Your task to perform on an android device: turn off location history Image 0: 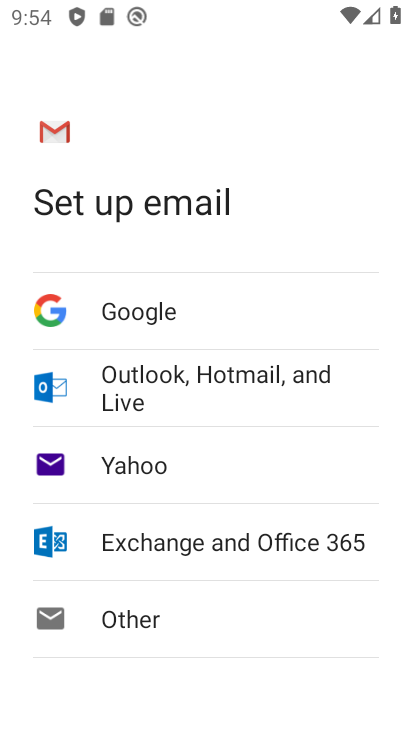
Step 0: press home button
Your task to perform on an android device: turn off location history Image 1: 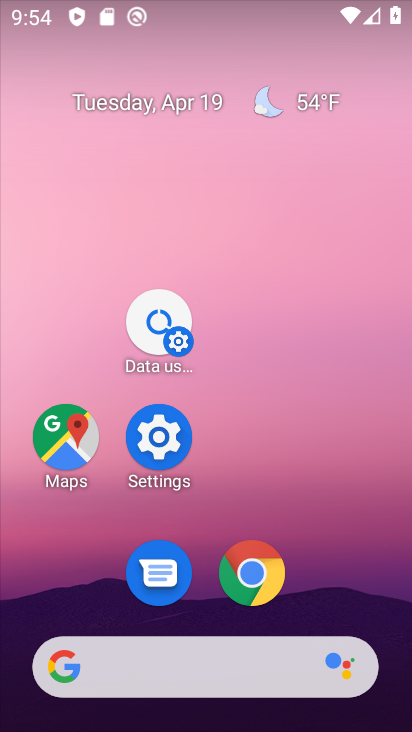
Step 1: click (60, 441)
Your task to perform on an android device: turn off location history Image 2: 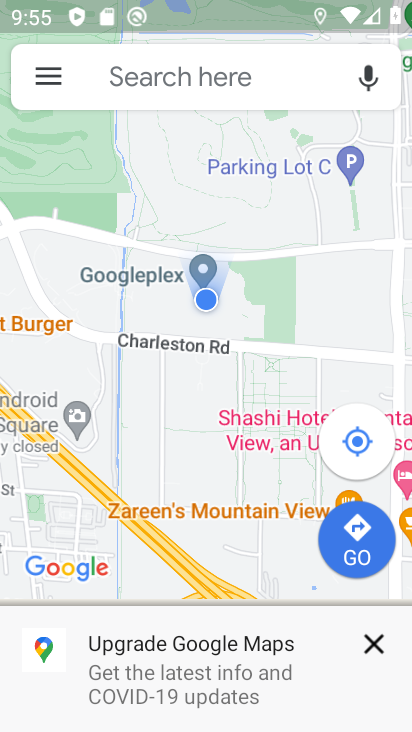
Step 2: click (50, 75)
Your task to perform on an android device: turn off location history Image 3: 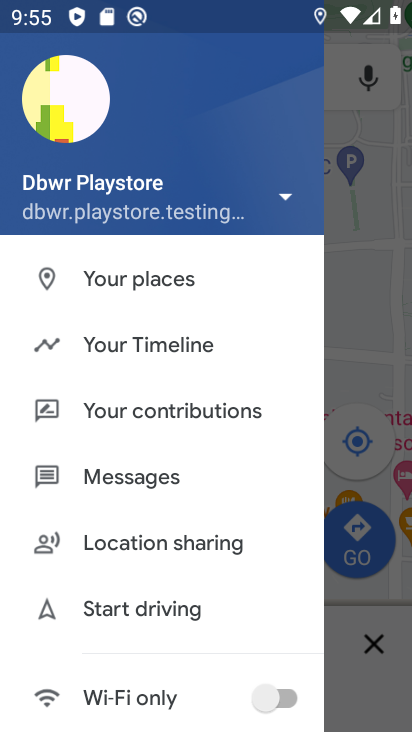
Step 3: click (96, 352)
Your task to perform on an android device: turn off location history Image 4: 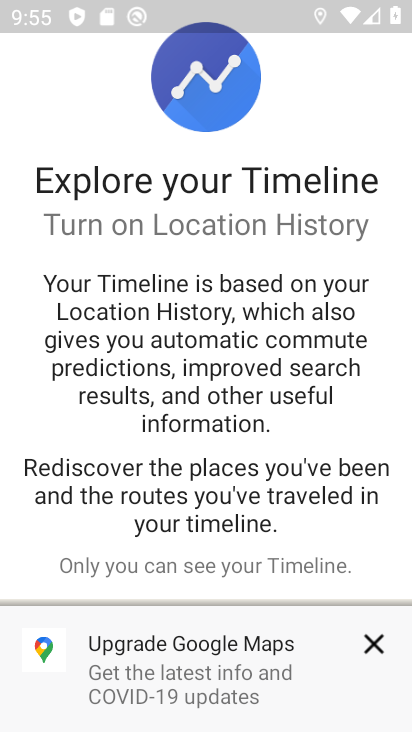
Step 4: drag from (245, 490) to (200, 223)
Your task to perform on an android device: turn off location history Image 5: 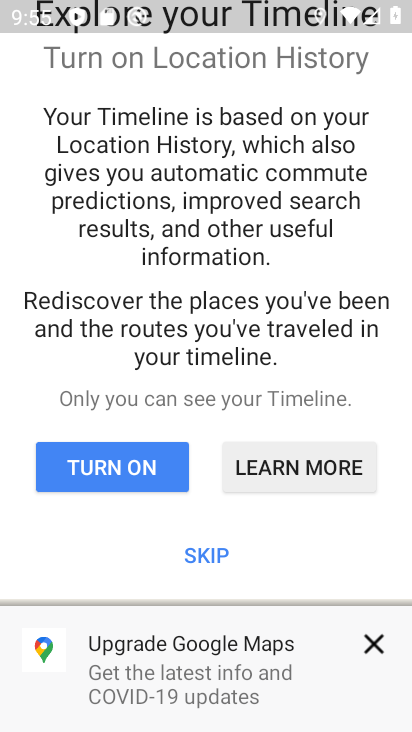
Step 5: click (193, 550)
Your task to perform on an android device: turn off location history Image 6: 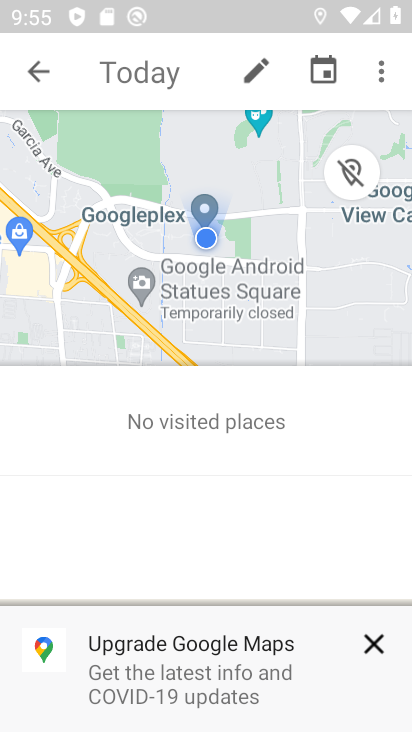
Step 6: click (381, 72)
Your task to perform on an android device: turn off location history Image 7: 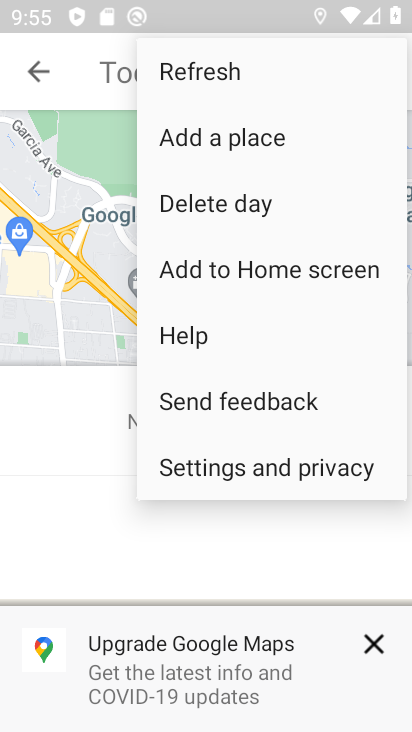
Step 7: click (236, 469)
Your task to perform on an android device: turn off location history Image 8: 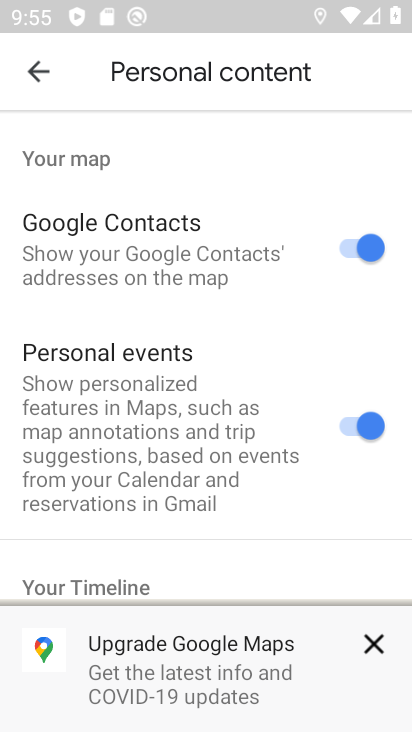
Step 8: drag from (150, 515) to (174, 133)
Your task to perform on an android device: turn off location history Image 9: 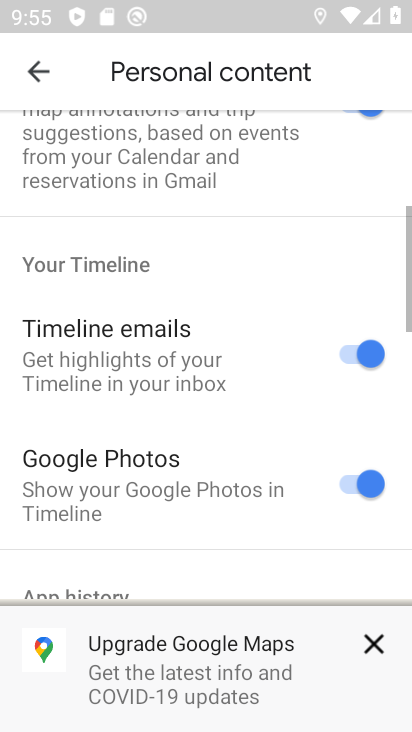
Step 9: drag from (165, 474) to (172, 143)
Your task to perform on an android device: turn off location history Image 10: 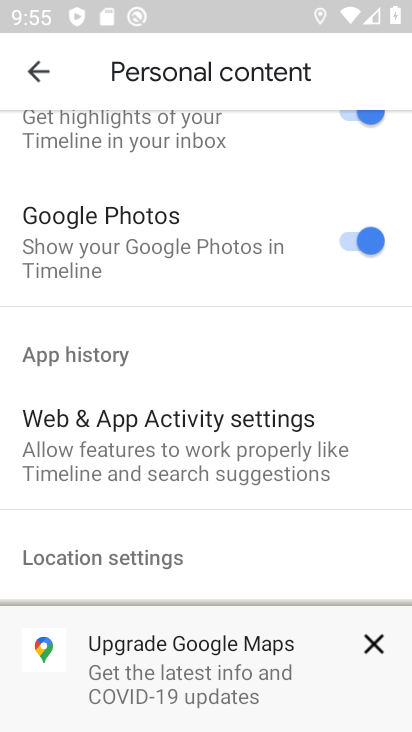
Step 10: drag from (132, 527) to (144, 198)
Your task to perform on an android device: turn off location history Image 11: 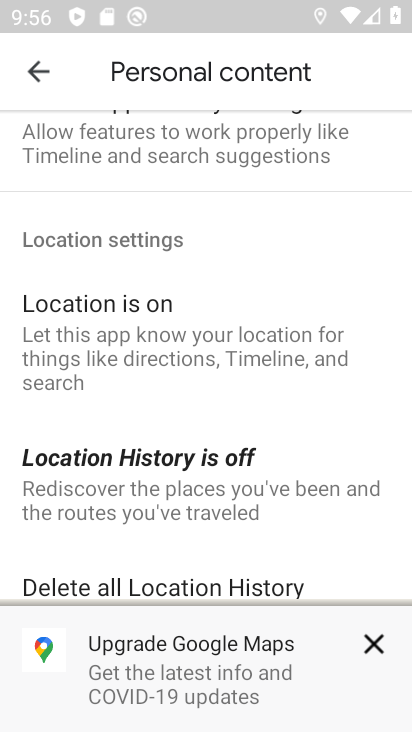
Step 11: click (97, 473)
Your task to perform on an android device: turn off location history Image 12: 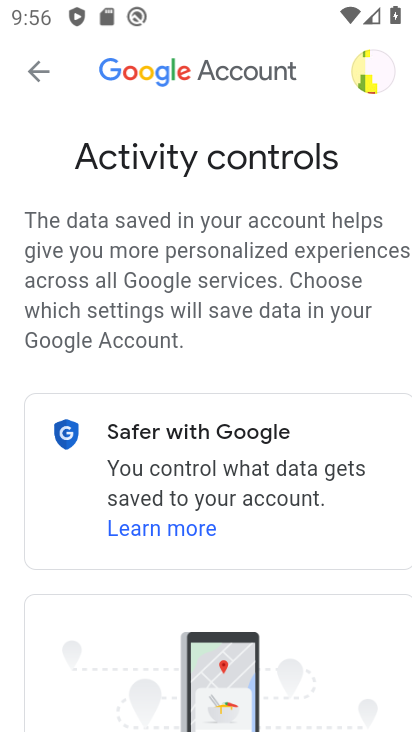
Step 12: drag from (318, 503) to (314, 125)
Your task to perform on an android device: turn off location history Image 13: 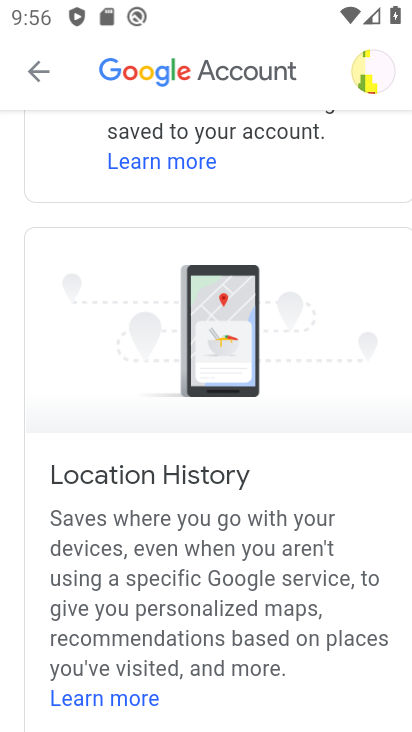
Step 13: drag from (284, 632) to (275, 235)
Your task to perform on an android device: turn off location history Image 14: 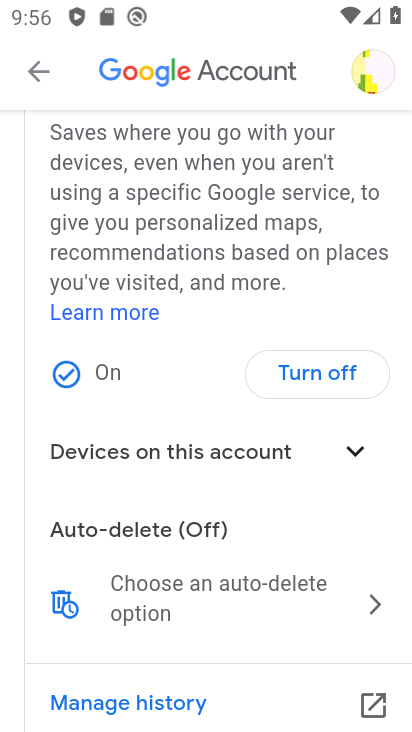
Step 14: click (319, 375)
Your task to perform on an android device: turn off location history Image 15: 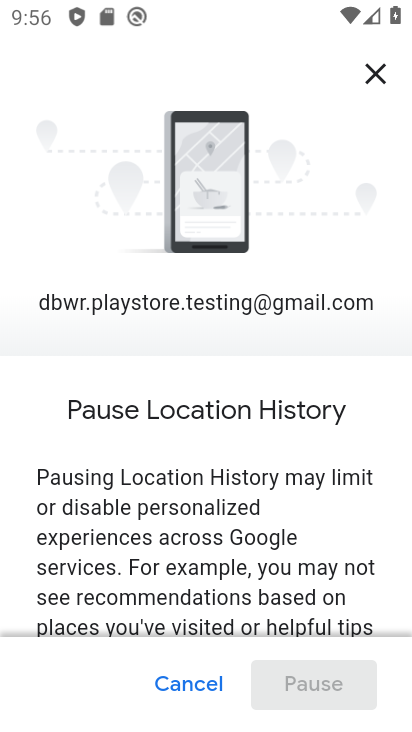
Step 15: drag from (265, 548) to (250, 123)
Your task to perform on an android device: turn off location history Image 16: 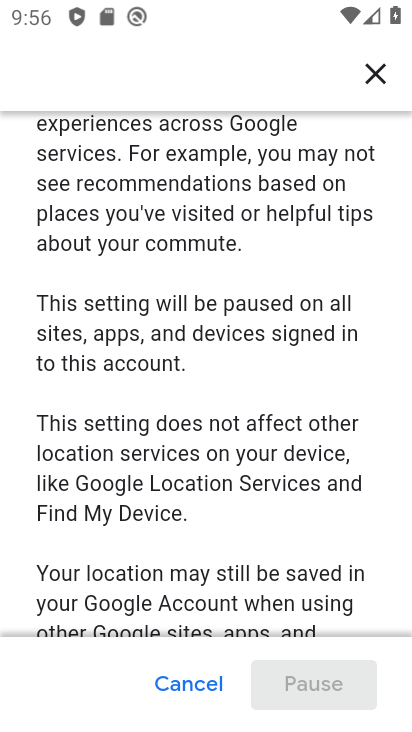
Step 16: drag from (195, 538) to (205, 122)
Your task to perform on an android device: turn off location history Image 17: 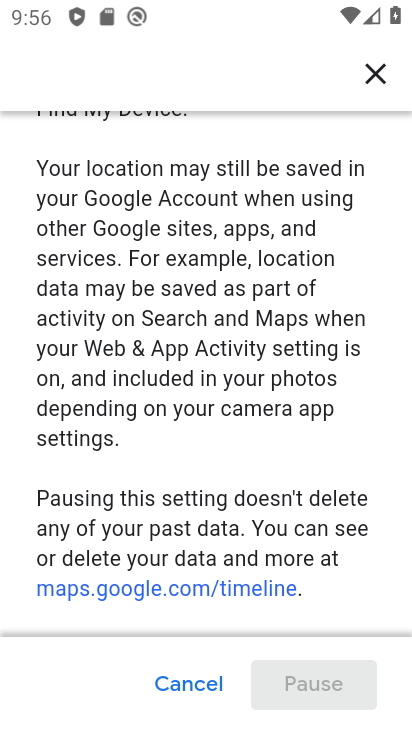
Step 17: drag from (196, 508) to (209, 165)
Your task to perform on an android device: turn off location history Image 18: 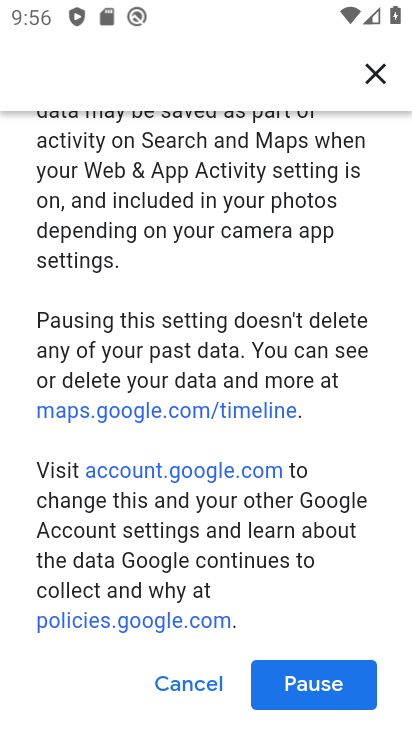
Step 18: click (311, 683)
Your task to perform on an android device: turn off location history Image 19: 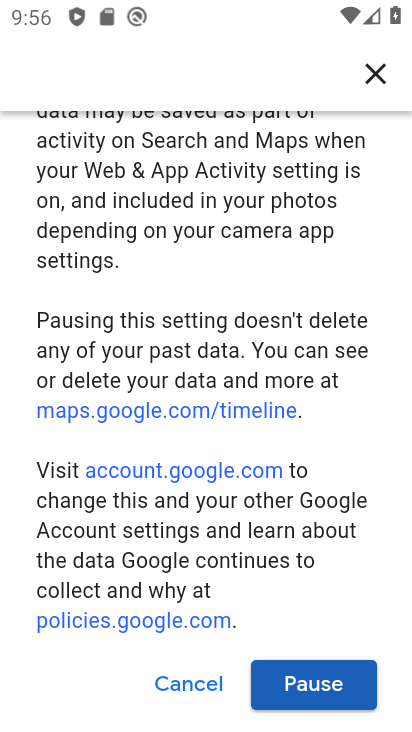
Step 19: drag from (178, 547) to (193, 254)
Your task to perform on an android device: turn off location history Image 20: 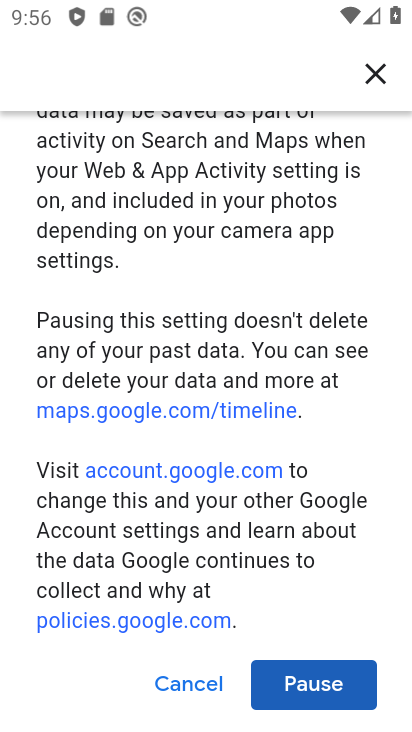
Step 20: click (306, 687)
Your task to perform on an android device: turn off location history Image 21: 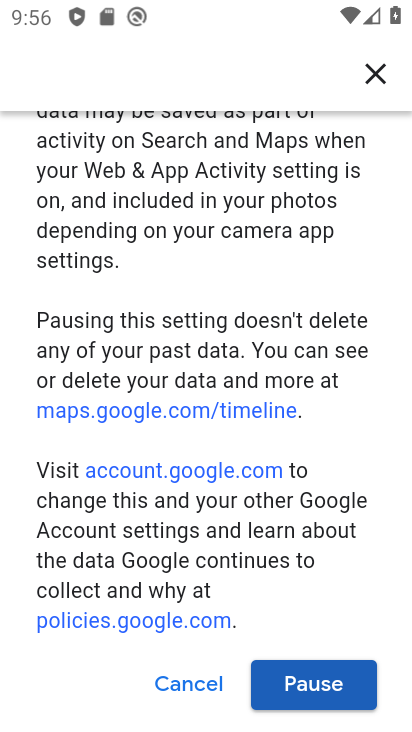
Step 21: click (308, 690)
Your task to perform on an android device: turn off location history Image 22: 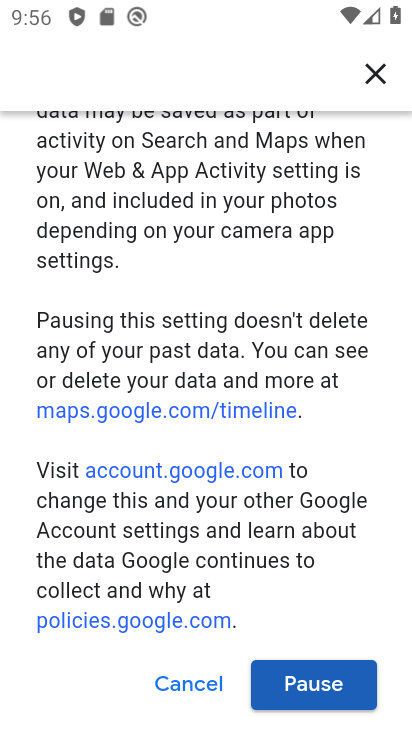
Step 22: click (311, 683)
Your task to perform on an android device: turn off location history Image 23: 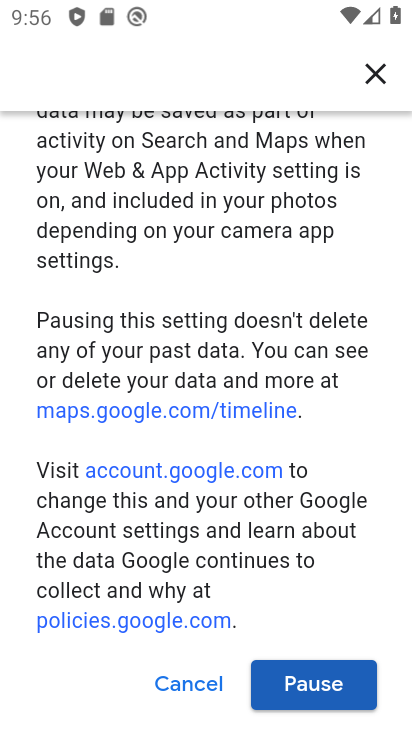
Step 23: drag from (237, 534) to (213, 290)
Your task to perform on an android device: turn off location history Image 24: 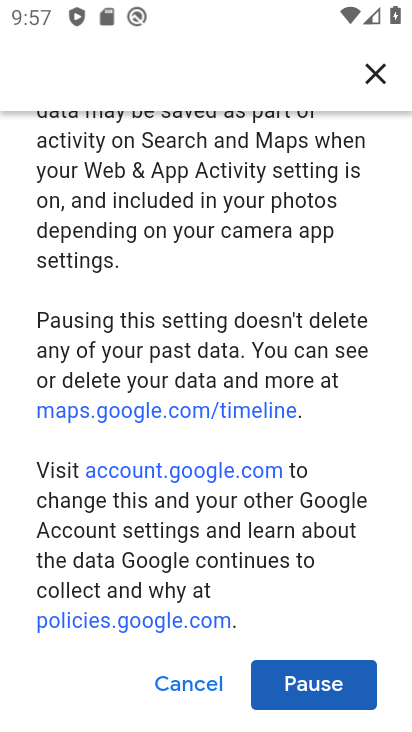
Step 24: click (319, 678)
Your task to perform on an android device: turn off location history Image 25: 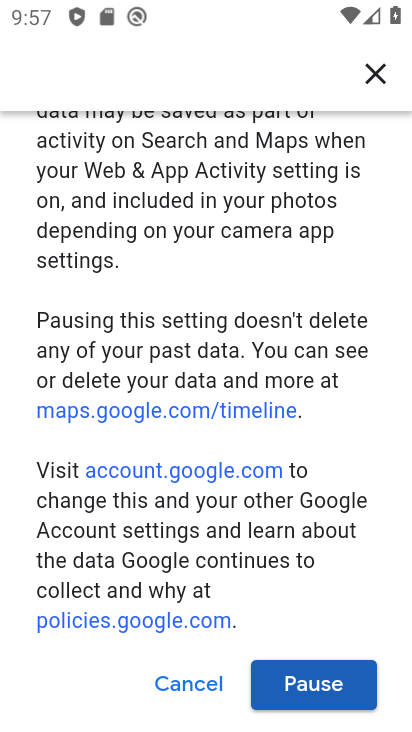
Step 25: click (322, 693)
Your task to perform on an android device: turn off location history Image 26: 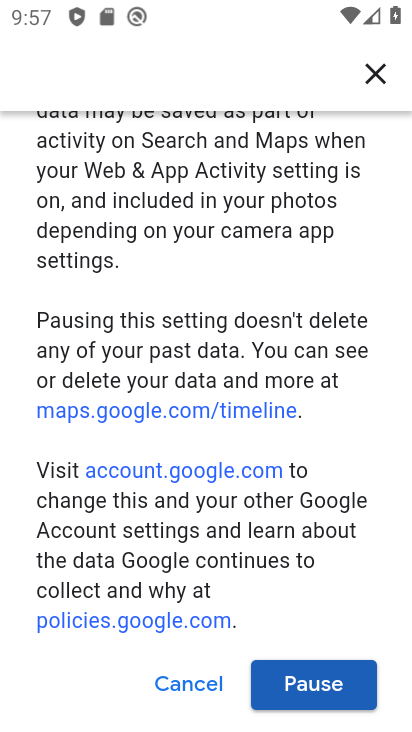
Step 26: click (299, 695)
Your task to perform on an android device: turn off location history Image 27: 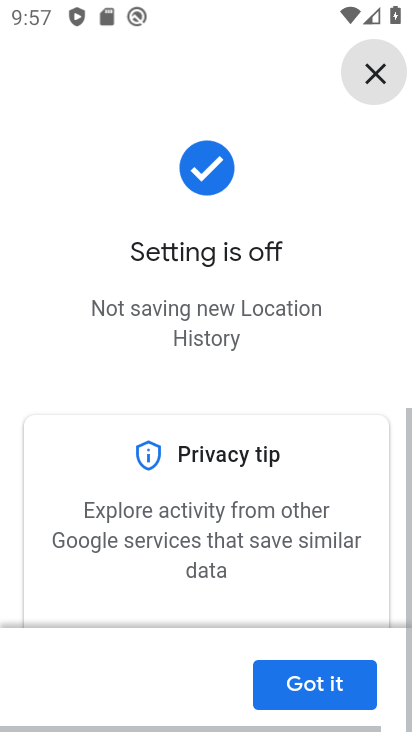
Step 27: click (327, 686)
Your task to perform on an android device: turn off location history Image 28: 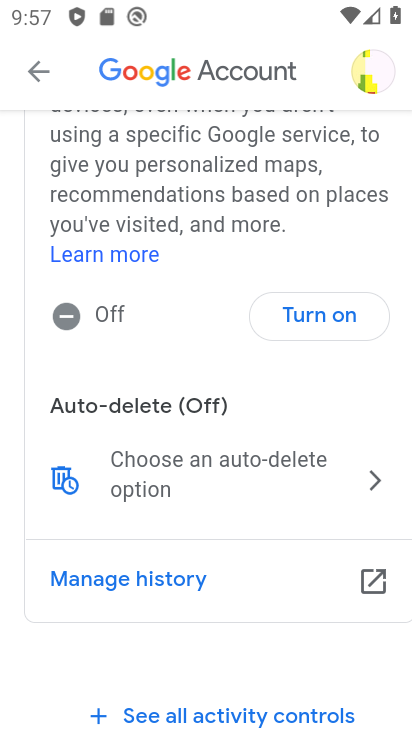
Step 28: task complete